Your task to perform on an android device: open sync settings in chrome Image 0: 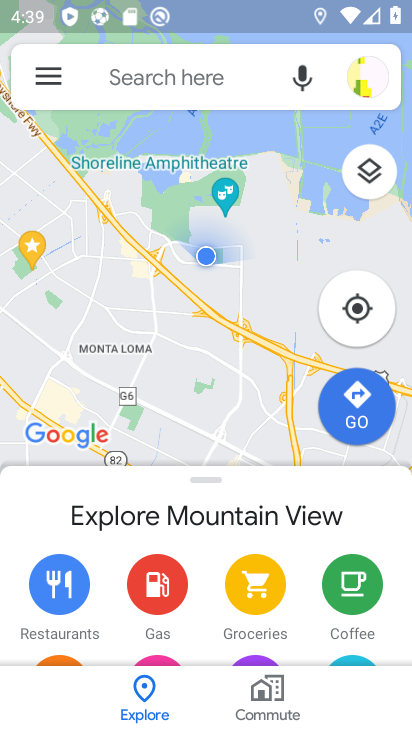
Step 0: press home button
Your task to perform on an android device: open sync settings in chrome Image 1: 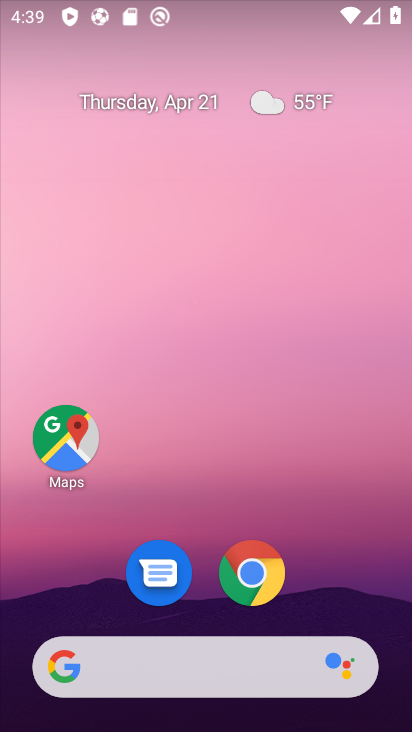
Step 1: click (271, 584)
Your task to perform on an android device: open sync settings in chrome Image 2: 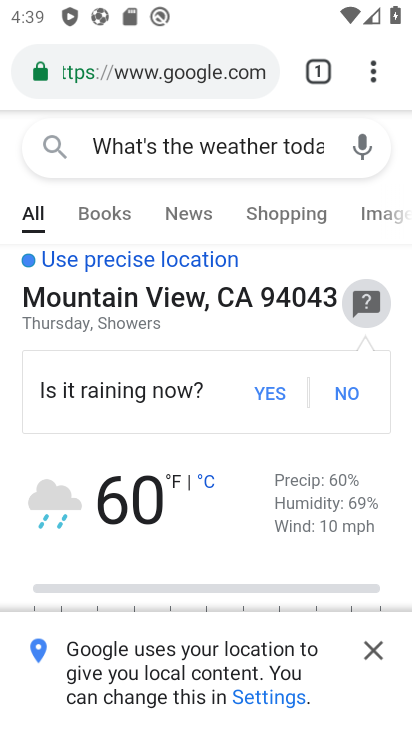
Step 2: click (370, 99)
Your task to perform on an android device: open sync settings in chrome Image 3: 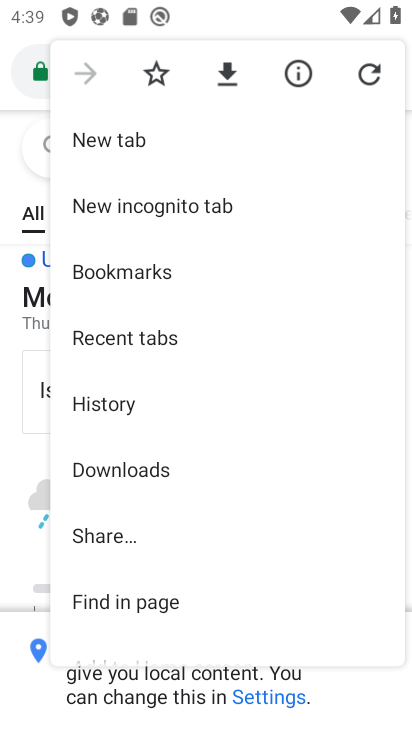
Step 3: drag from (207, 554) to (190, 226)
Your task to perform on an android device: open sync settings in chrome Image 4: 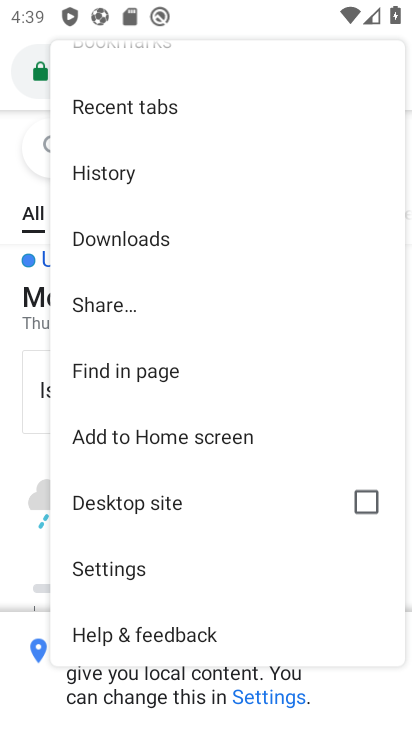
Step 4: click (213, 563)
Your task to perform on an android device: open sync settings in chrome Image 5: 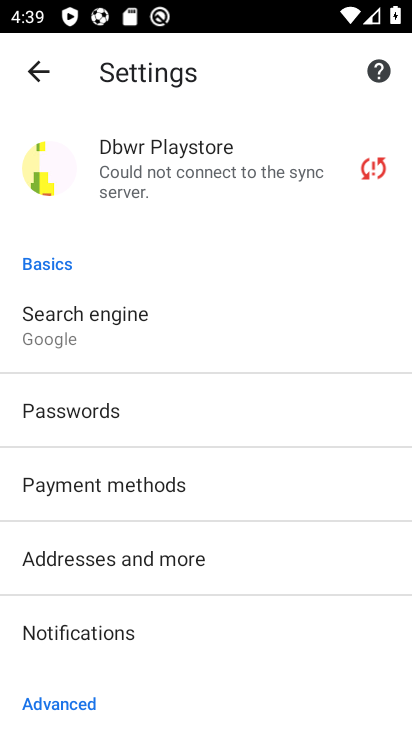
Step 5: drag from (260, 651) to (271, 309)
Your task to perform on an android device: open sync settings in chrome Image 6: 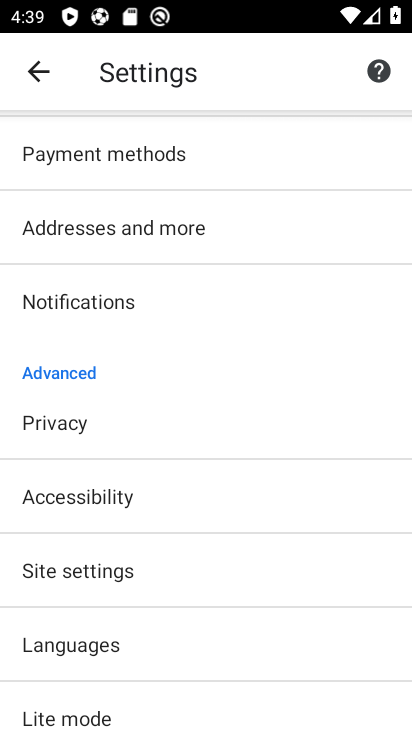
Step 6: drag from (271, 309) to (272, 716)
Your task to perform on an android device: open sync settings in chrome Image 7: 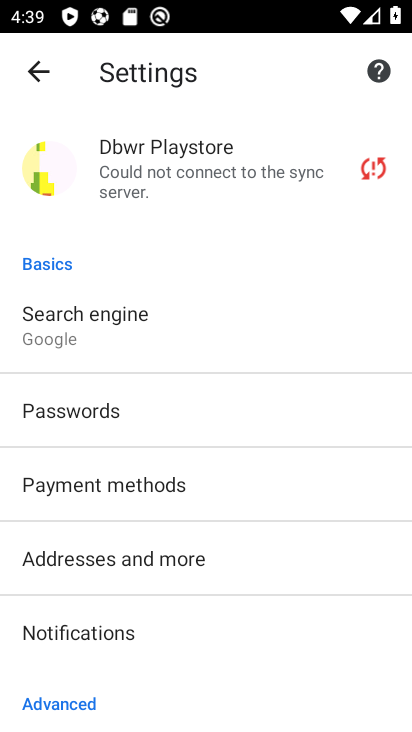
Step 7: click (234, 167)
Your task to perform on an android device: open sync settings in chrome Image 8: 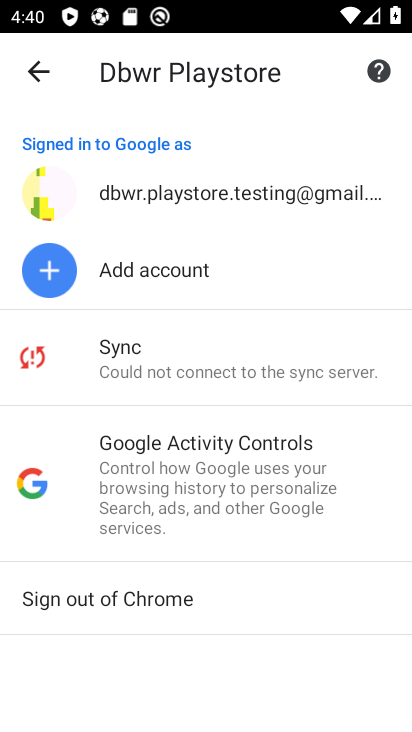
Step 8: click (271, 381)
Your task to perform on an android device: open sync settings in chrome Image 9: 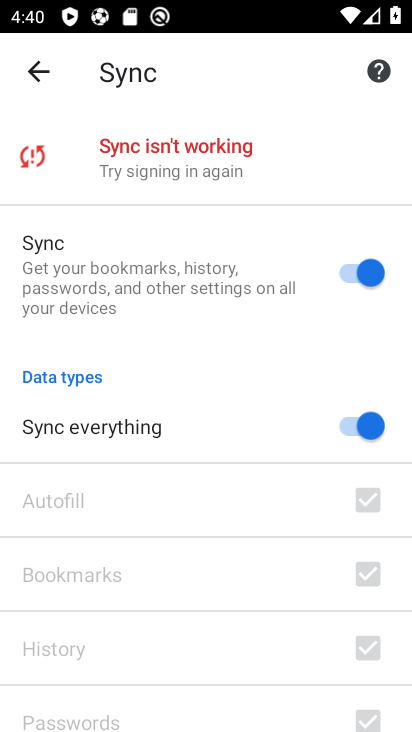
Step 9: task complete